Your task to perform on an android device: toggle location history Image 0: 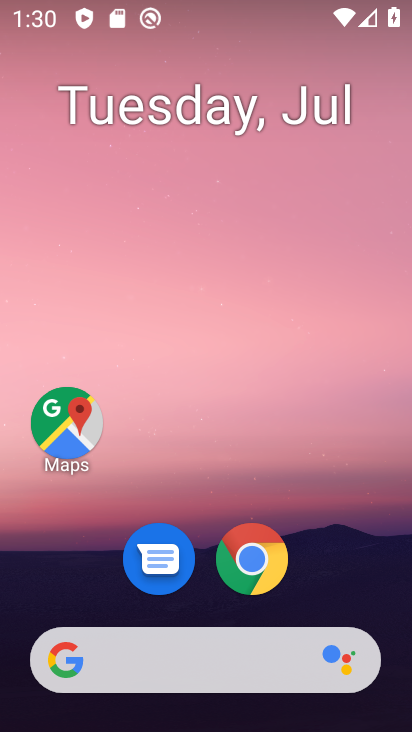
Step 0: drag from (361, 586) to (403, 267)
Your task to perform on an android device: toggle location history Image 1: 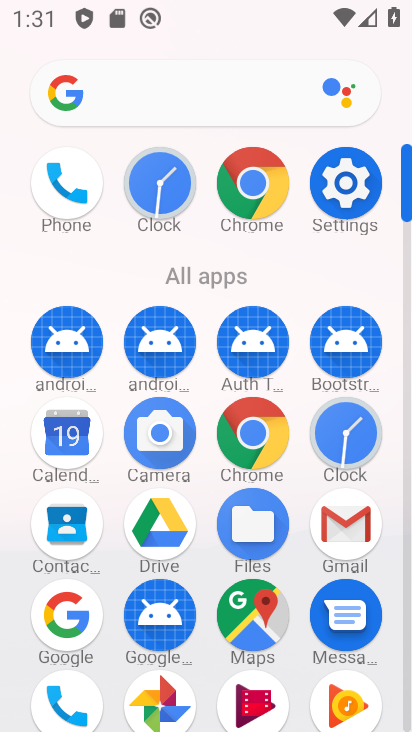
Step 1: click (358, 195)
Your task to perform on an android device: toggle location history Image 2: 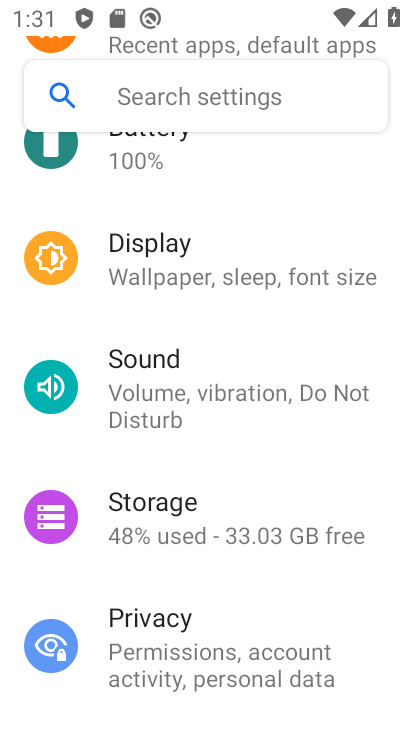
Step 2: drag from (367, 226) to (364, 317)
Your task to perform on an android device: toggle location history Image 3: 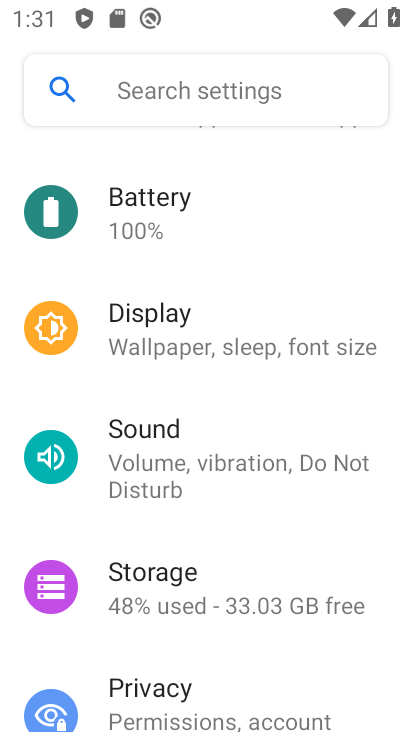
Step 3: drag from (357, 215) to (346, 333)
Your task to perform on an android device: toggle location history Image 4: 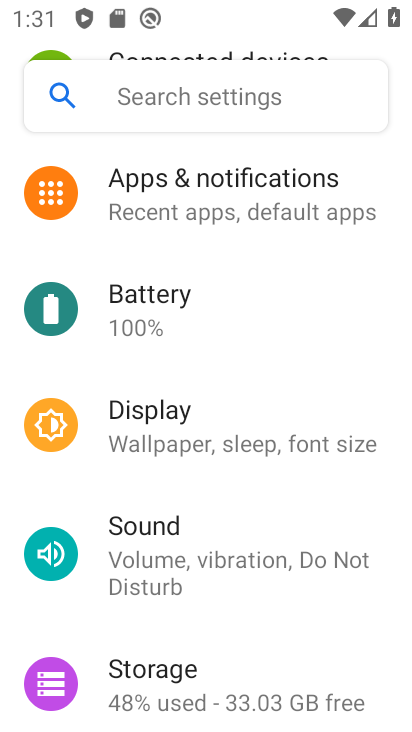
Step 4: drag from (366, 179) to (356, 335)
Your task to perform on an android device: toggle location history Image 5: 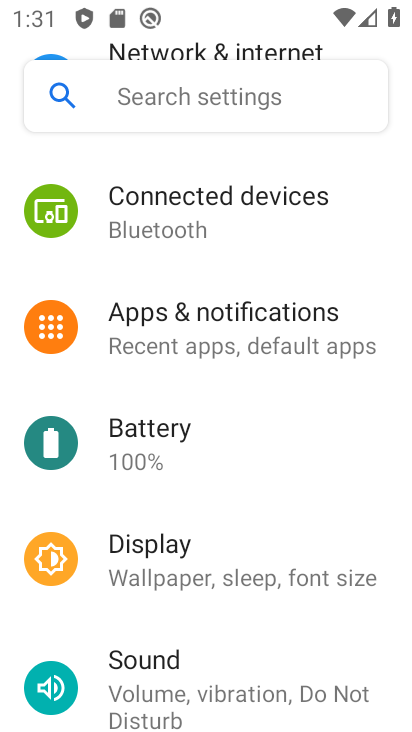
Step 5: drag from (372, 168) to (372, 276)
Your task to perform on an android device: toggle location history Image 6: 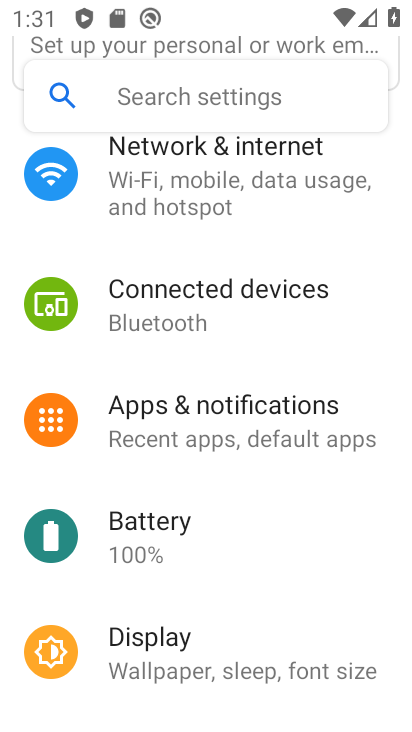
Step 6: drag from (357, 242) to (371, 368)
Your task to perform on an android device: toggle location history Image 7: 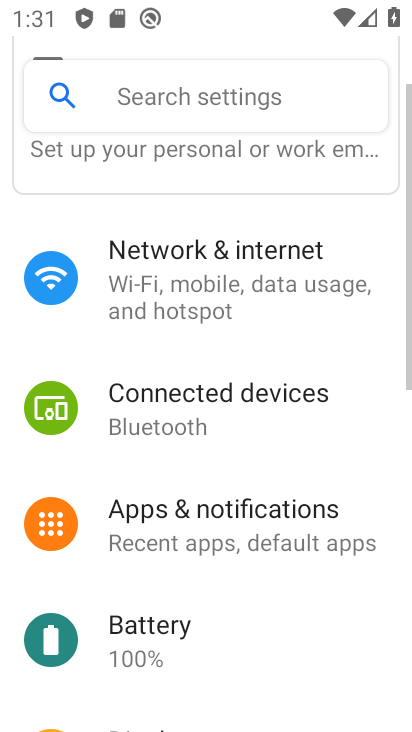
Step 7: drag from (364, 399) to (371, 296)
Your task to perform on an android device: toggle location history Image 8: 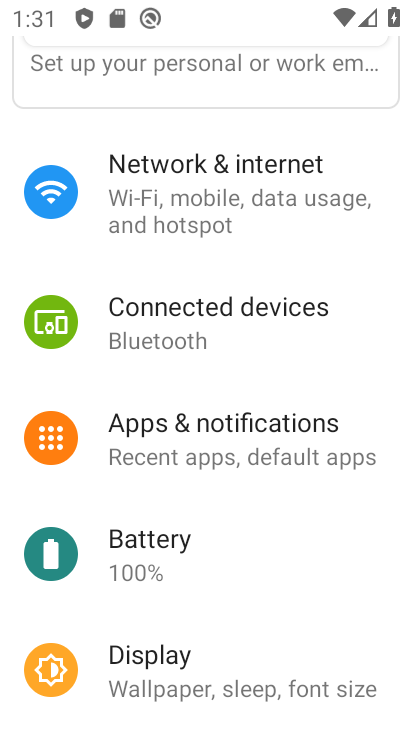
Step 8: drag from (356, 391) to (356, 332)
Your task to perform on an android device: toggle location history Image 9: 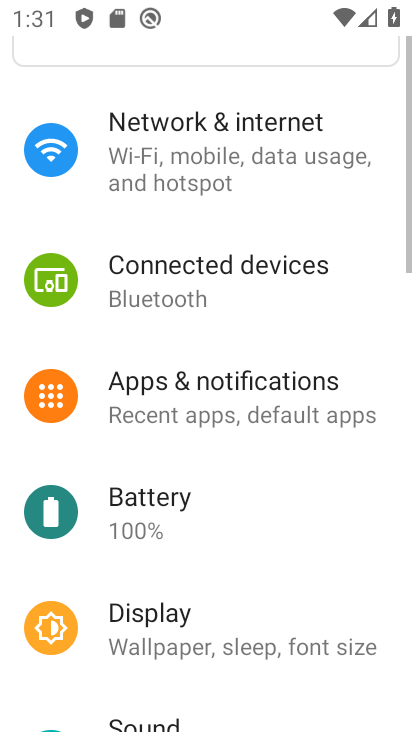
Step 9: drag from (334, 463) to (355, 363)
Your task to perform on an android device: toggle location history Image 10: 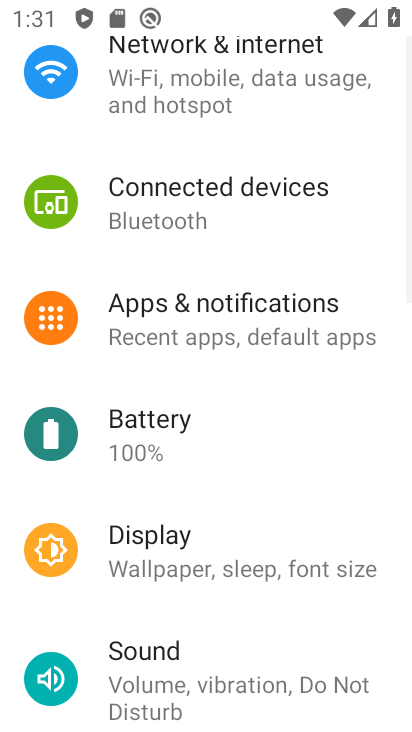
Step 10: drag from (335, 454) to (336, 360)
Your task to perform on an android device: toggle location history Image 11: 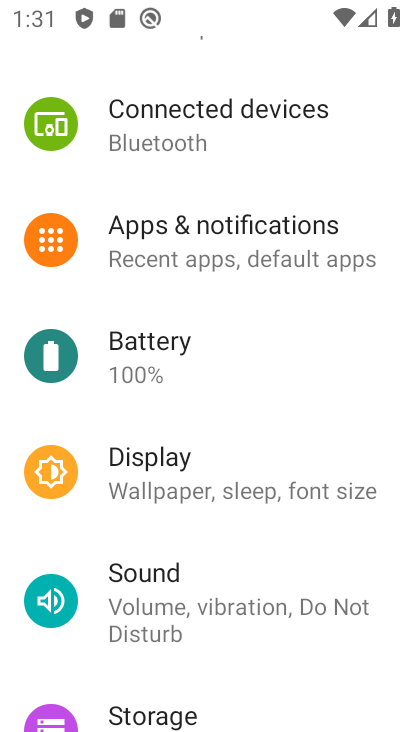
Step 11: drag from (315, 489) to (330, 336)
Your task to perform on an android device: toggle location history Image 12: 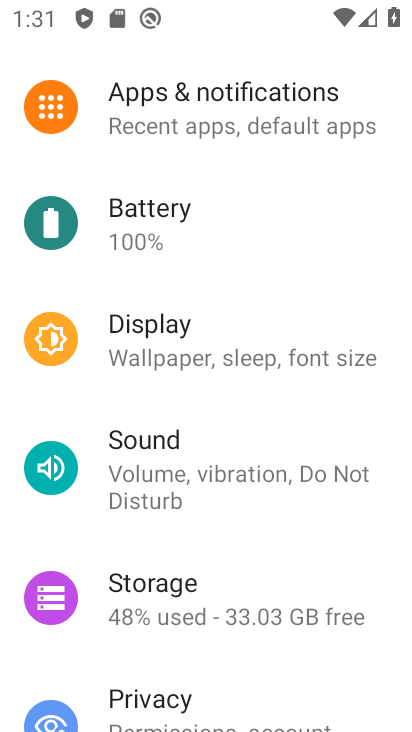
Step 12: drag from (328, 498) to (319, 361)
Your task to perform on an android device: toggle location history Image 13: 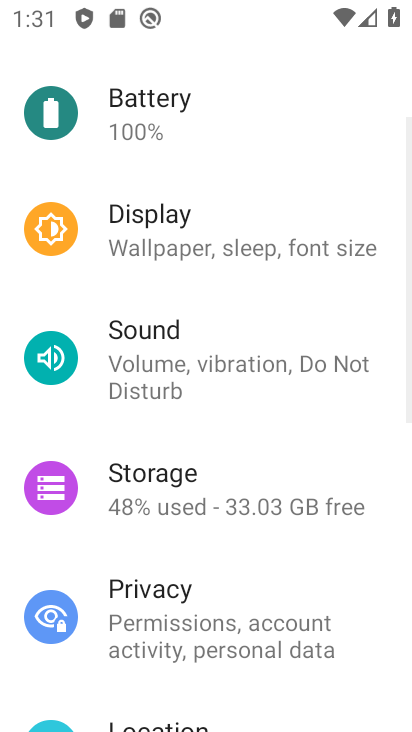
Step 13: drag from (337, 508) to (332, 390)
Your task to perform on an android device: toggle location history Image 14: 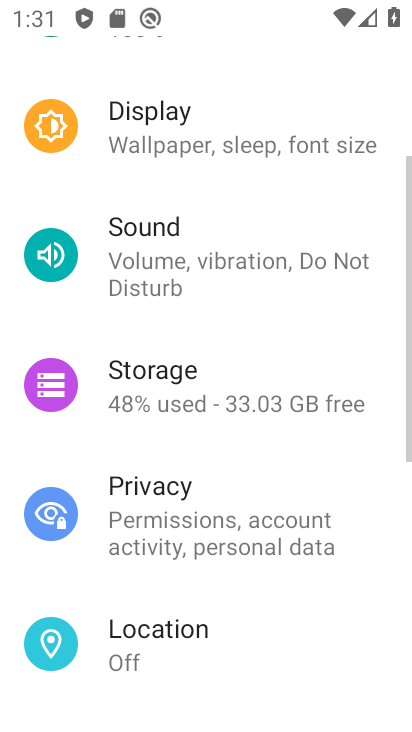
Step 14: drag from (318, 521) to (339, 377)
Your task to perform on an android device: toggle location history Image 15: 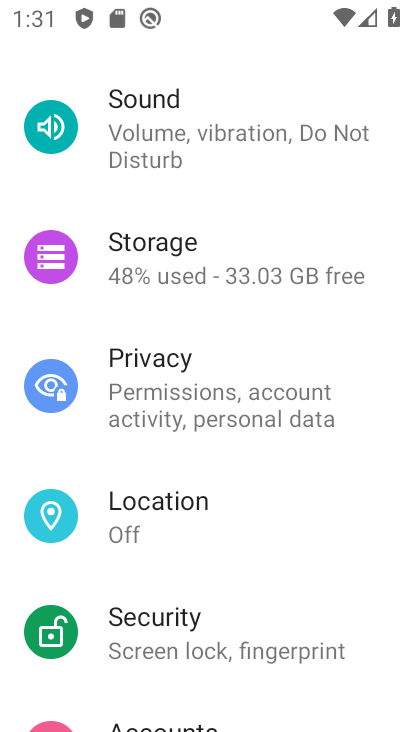
Step 15: drag from (321, 533) to (305, 378)
Your task to perform on an android device: toggle location history Image 16: 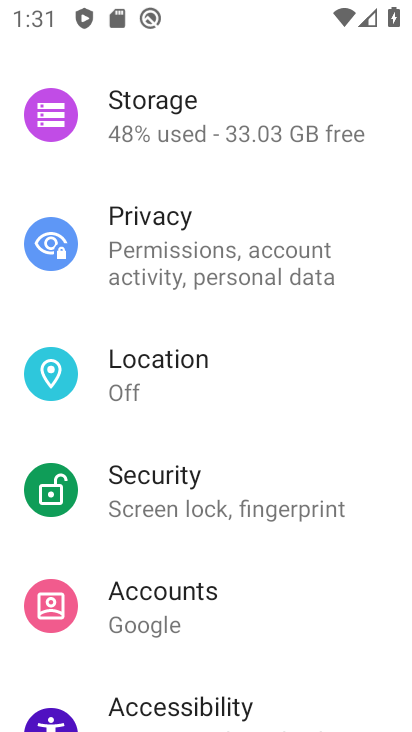
Step 16: click (256, 390)
Your task to perform on an android device: toggle location history Image 17: 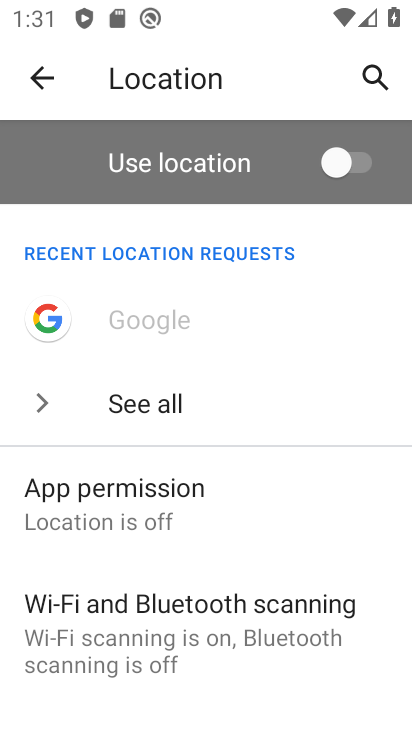
Step 17: drag from (338, 483) to (338, 377)
Your task to perform on an android device: toggle location history Image 18: 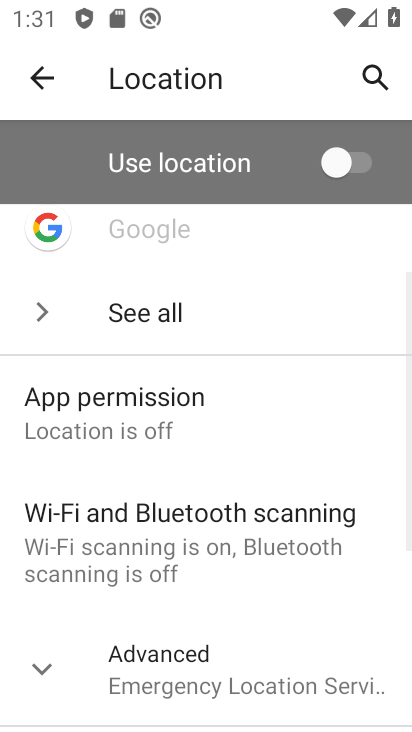
Step 18: drag from (330, 526) to (334, 374)
Your task to perform on an android device: toggle location history Image 19: 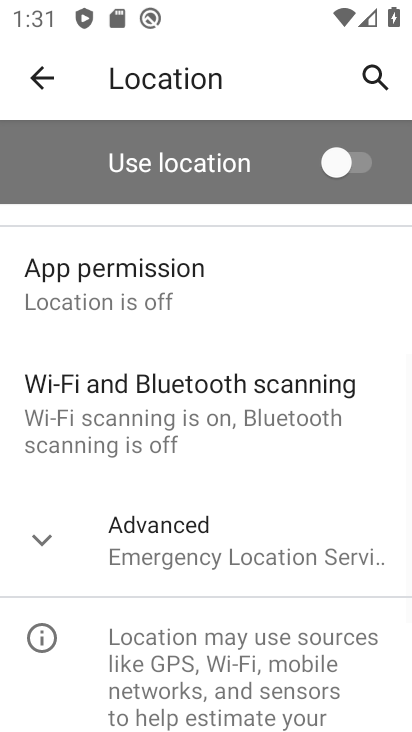
Step 19: click (324, 556)
Your task to perform on an android device: toggle location history Image 20: 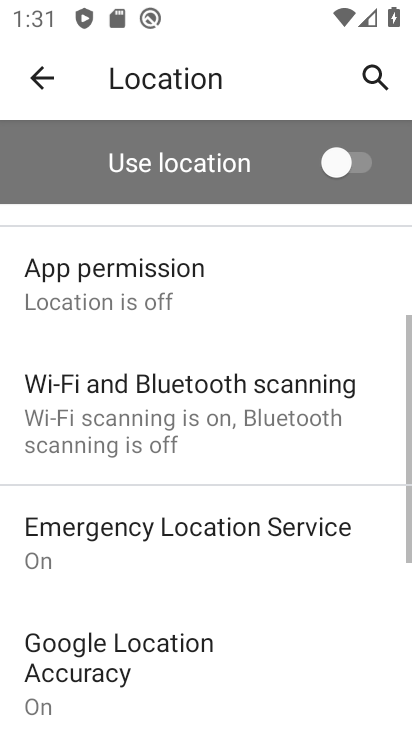
Step 20: drag from (318, 514) to (323, 391)
Your task to perform on an android device: toggle location history Image 21: 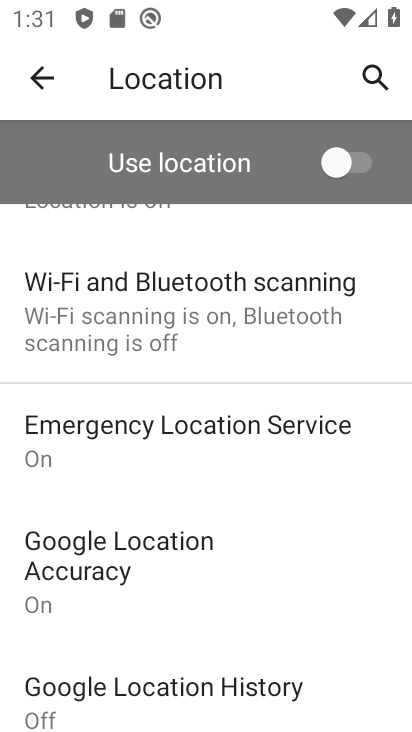
Step 21: drag from (316, 526) to (317, 402)
Your task to perform on an android device: toggle location history Image 22: 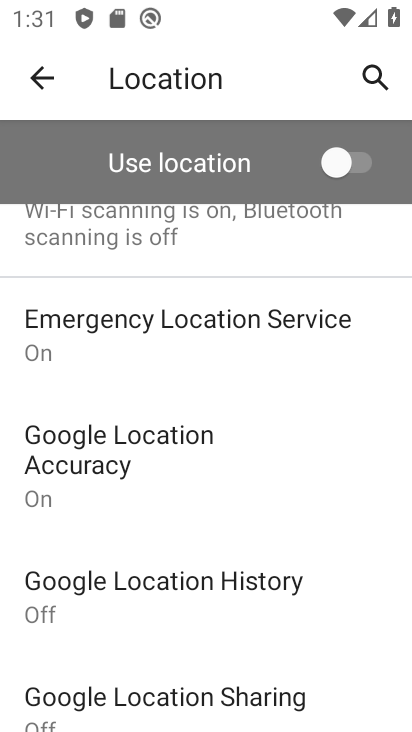
Step 22: drag from (336, 597) to (344, 445)
Your task to perform on an android device: toggle location history Image 23: 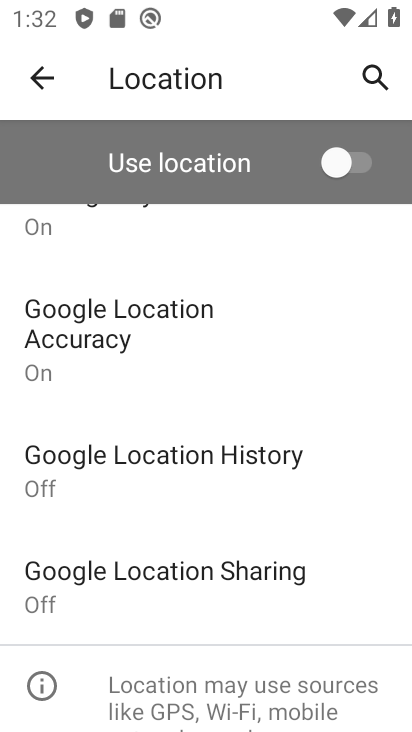
Step 23: click (282, 466)
Your task to perform on an android device: toggle location history Image 24: 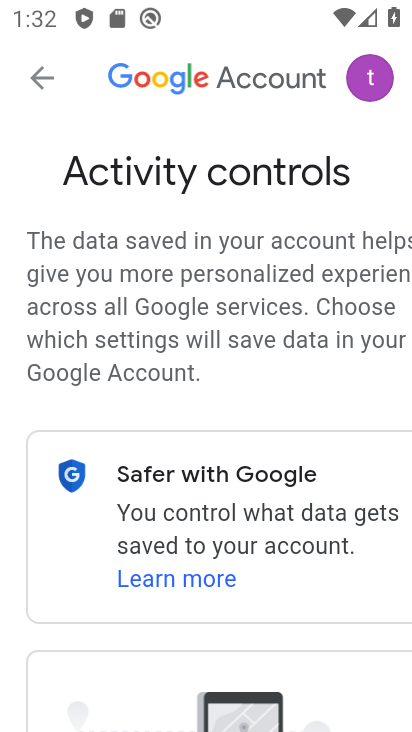
Step 24: drag from (302, 496) to (311, 356)
Your task to perform on an android device: toggle location history Image 25: 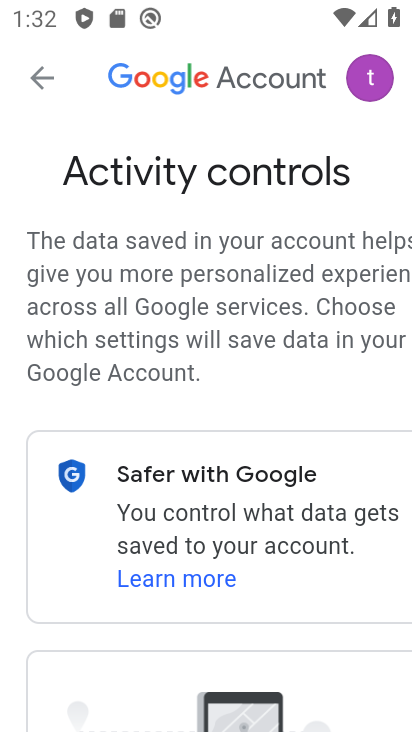
Step 25: drag from (311, 536) to (320, 390)
Your task to perform on an android device: toggle location history Image 26: 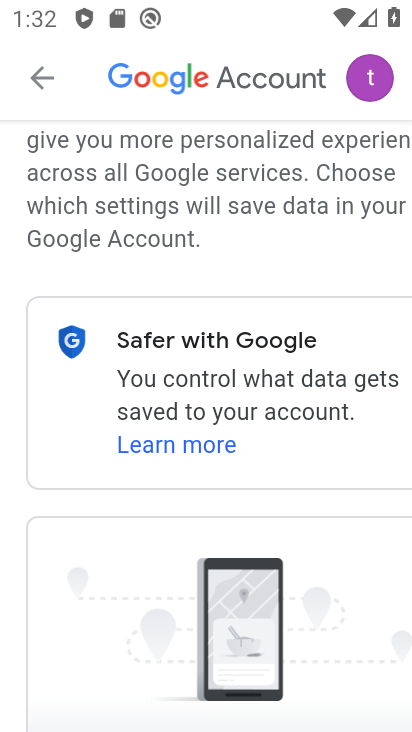
Step 26: drag from (319, 522) to (324, 391)
Your task to perform on an android device: toggle location history Image 27: 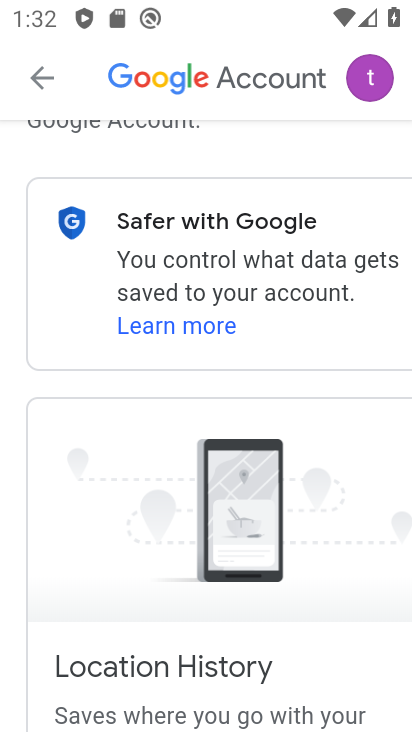
Step 27: drag from (313, 572) to (335, 421)
Your task to perform on an android device: toggle location history Image 28: 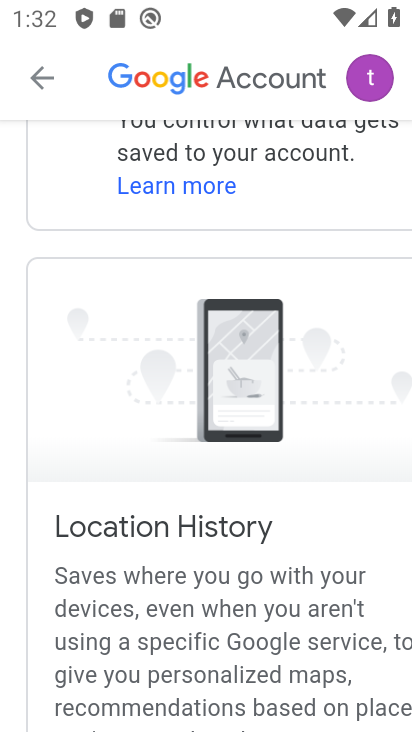
Step 28: drag from (306, 617) to (309, 463)
Your task to perform on an android device: toggle location history Image 29: 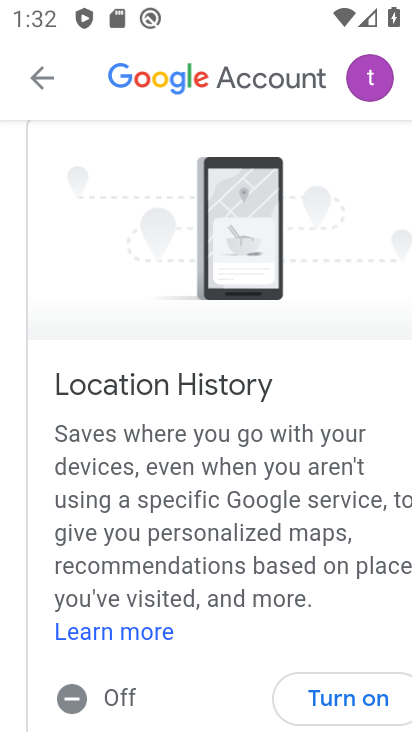
Step 29: drag from (294, 633) to (296, 479)
Your task to perform on an android device: toggle location history Image 30: 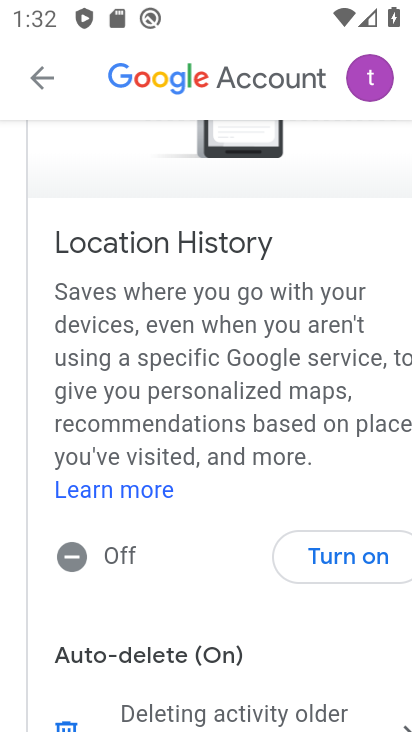
Step 30: click (349, 558)
Your task to perform on an android device: toggle location history Image 31: 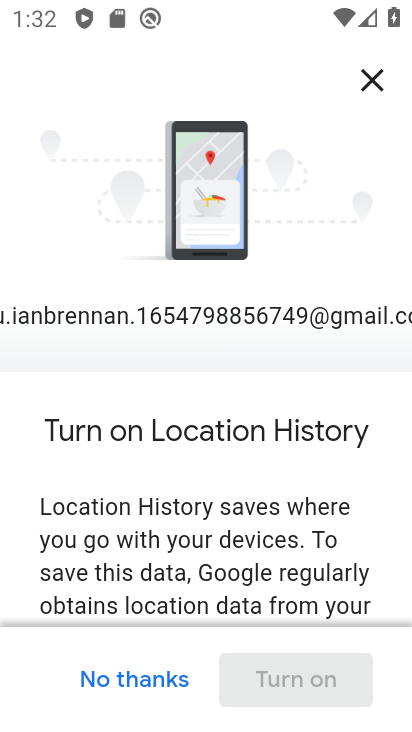
Step 31: drag from (282, 526) to (297, 399)
Your task to perform on an android device: toggle location history Image 32: 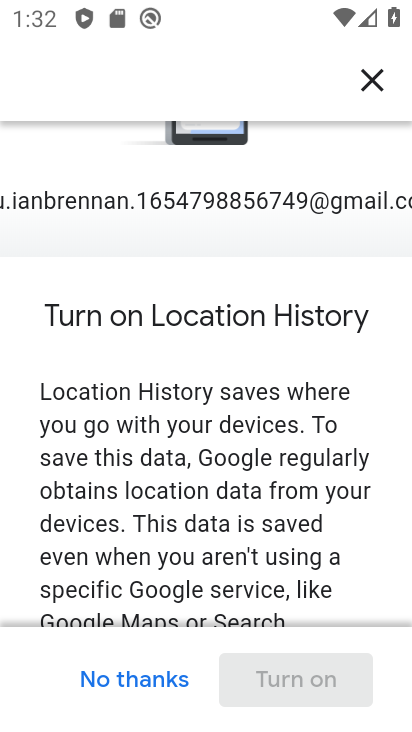
Step 32: drag from (282, 542) to (307, 375)
Your task to perform on an android device: toggle location history Image 33: 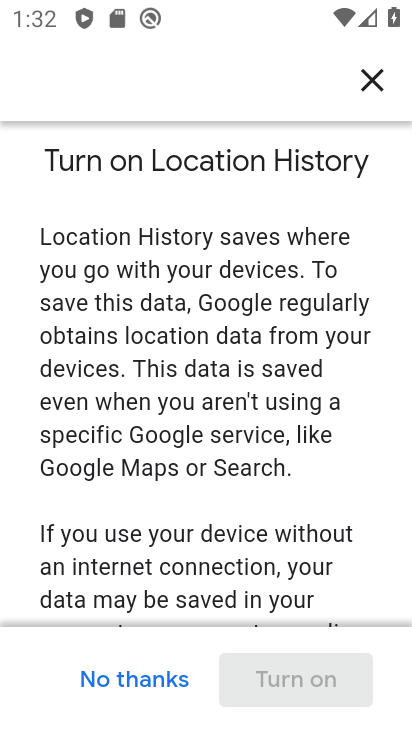
Step 33: drag from (287, 544) to (300, 386)
Your task to perform on an android device: toggle location history Image 34: 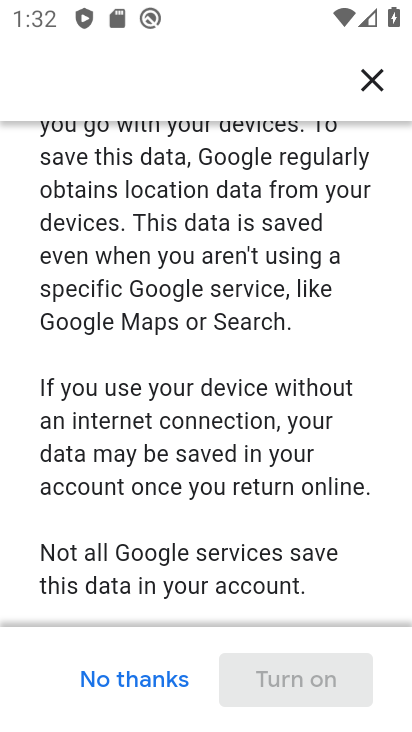
Step 34: drag from (285, 548) to (308, 393)
Your task to perform on an android device: toggle location history Image 35: 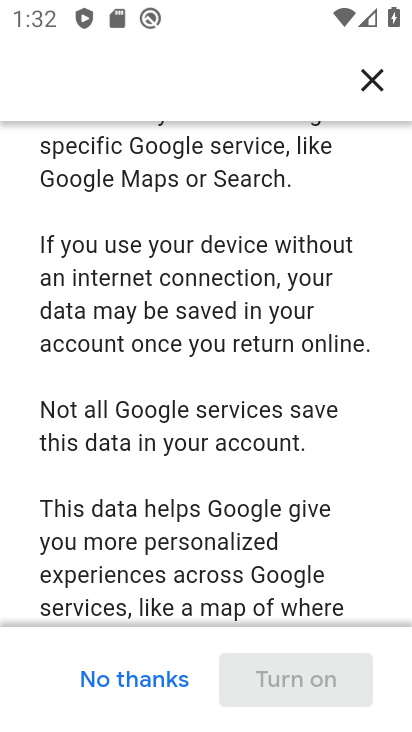
Step 35: drag from (269, 531) to (280, 395)
Your task to perform on an android device: toggle location history Image 36: 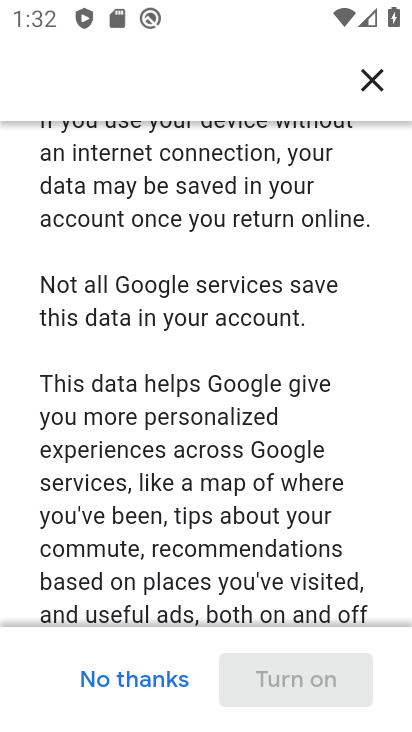
Step 36: drag from (245, 540) to (247, 398)
Your task to perform on an android device: toggle location history Image 37: 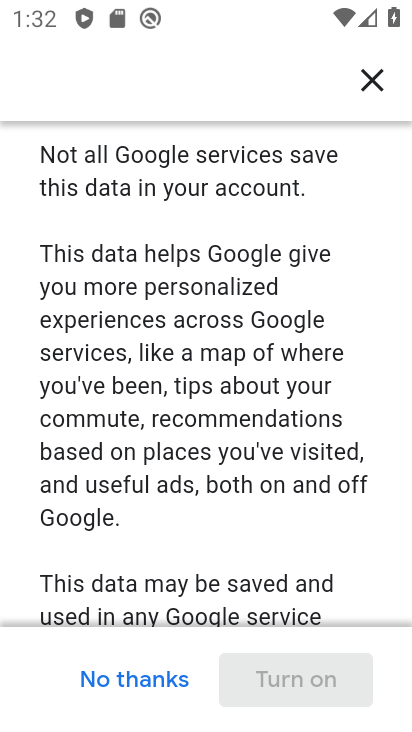
Step 37: drag from (237, 520) to (259, 358)
Your task to perform on an android device: toggle location history Image 38: 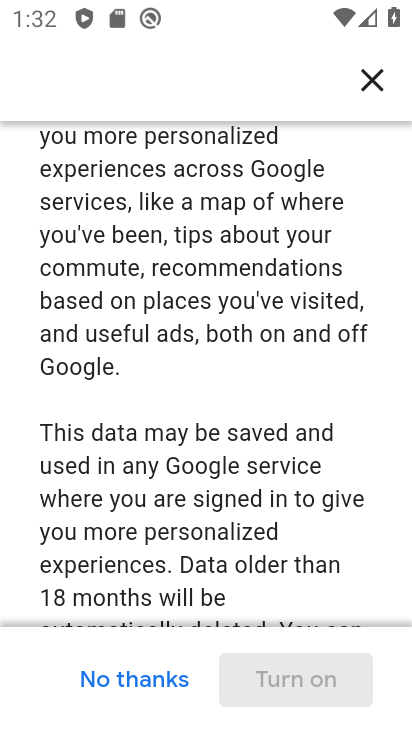
Step 38: drag from (244, 505) to (254, 337)
Your task to perform on an android device: toggle location history Image 39: 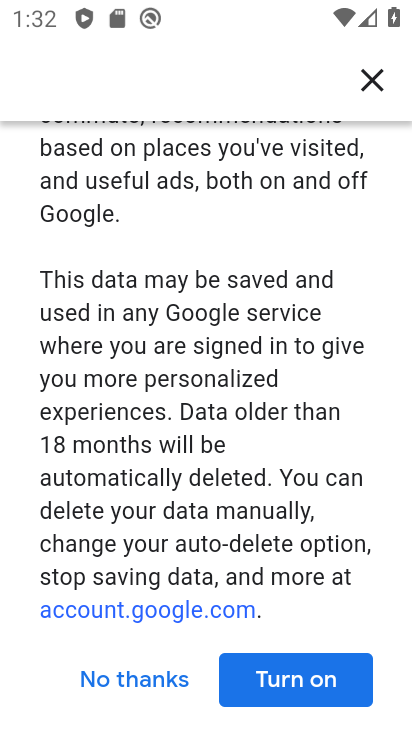
Step 39: drag from (242, 488) to (242, 368)
Your task to perform on an android device: toggle location history Image 40: 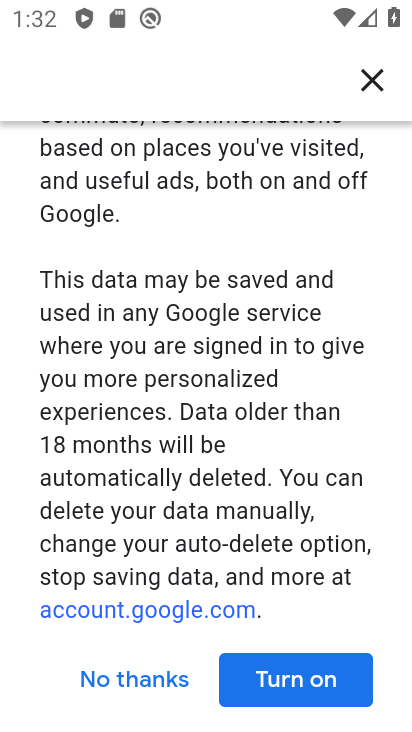
Step 40: click (283, 687)
Your task to perform on an android device: toggle location history Image 41: 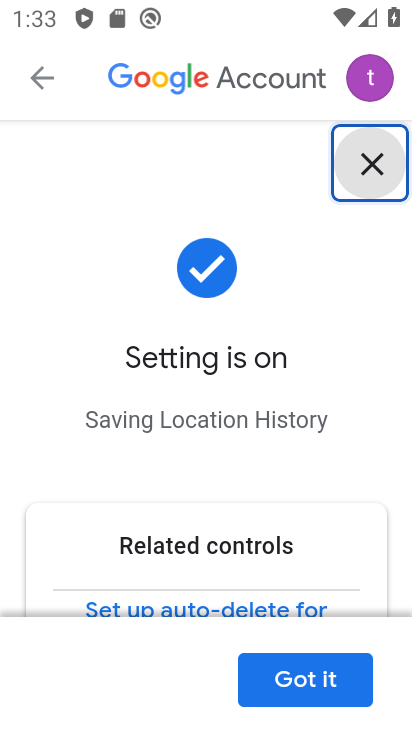
Step 41: task complete